Your task to perform on an android device: Go to Yahoo.com Image 0: 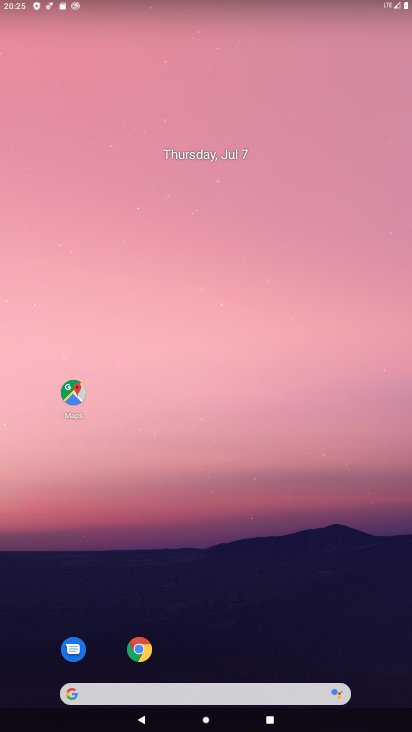
Step 0: click (140, 648)
Your task to perform on an android device: Go to Yahoo.com Image 1: 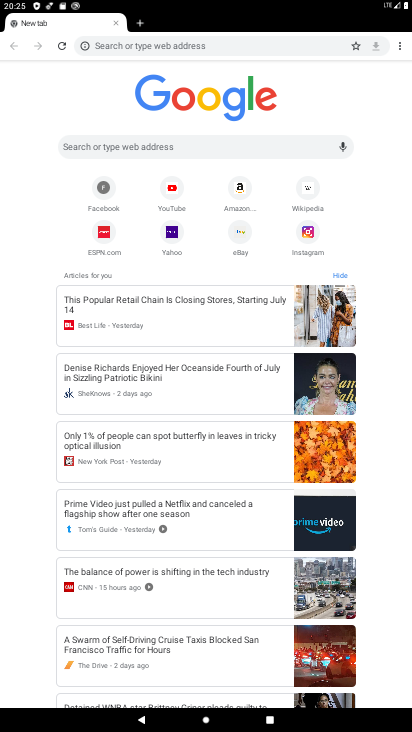
Step 1: click (169, 229)
Your task to perform on an android device: Go to Yahoo.com Image 2: 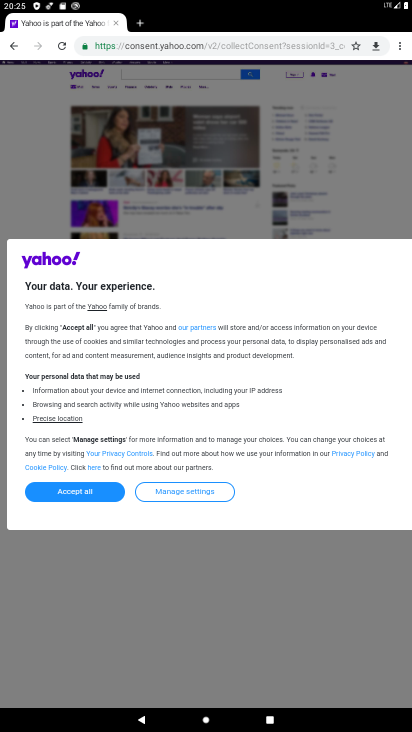
Step 2: click (65, 493)
Your task to perform on an android device: Go to Yahoo.com Image 3: 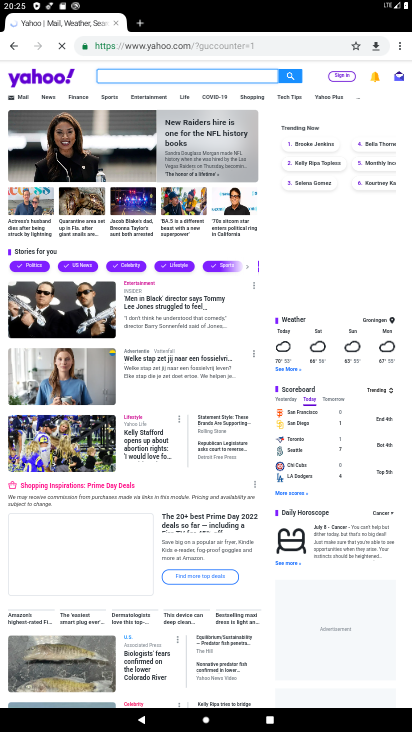
Step 3: task complete